Your task to perform on an android device: Go to accessibility settings Image 0: 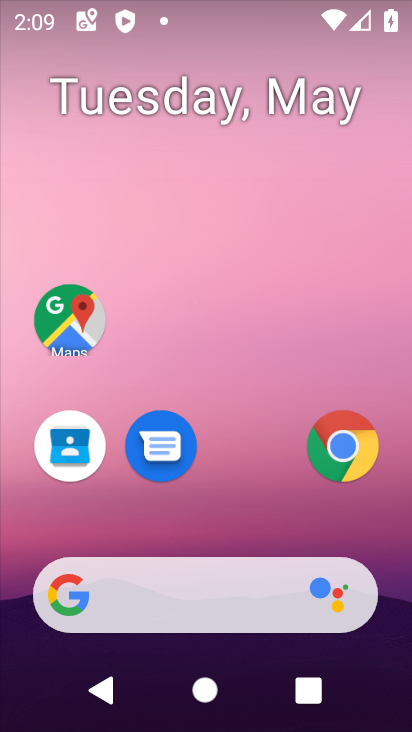
Step 0: drag from (231, 557) to (216, 124)
Your task to perform on an android device: Go to accessibility settings Image 1: 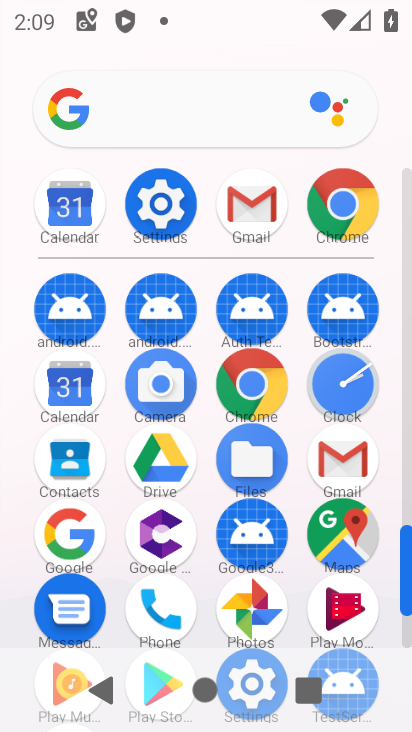
Step 1: click (182, 216)
Your task to perform on an android device: Go to accessibility settings Image 2: 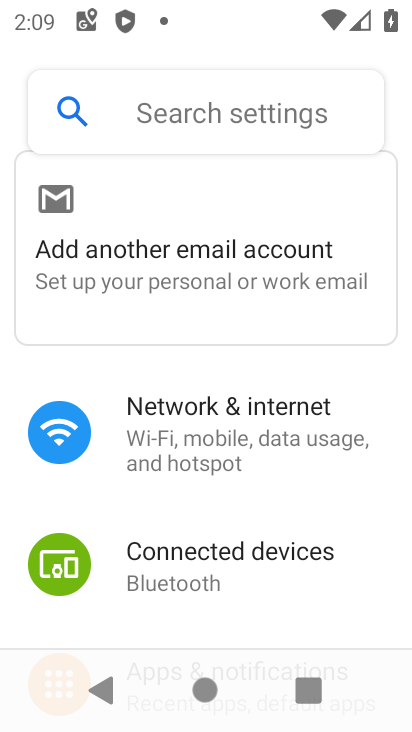
Step 2: drag from (256, 456) to (231, 73)
Your task to perform on an android device: Go to accessibility settings Image 3: 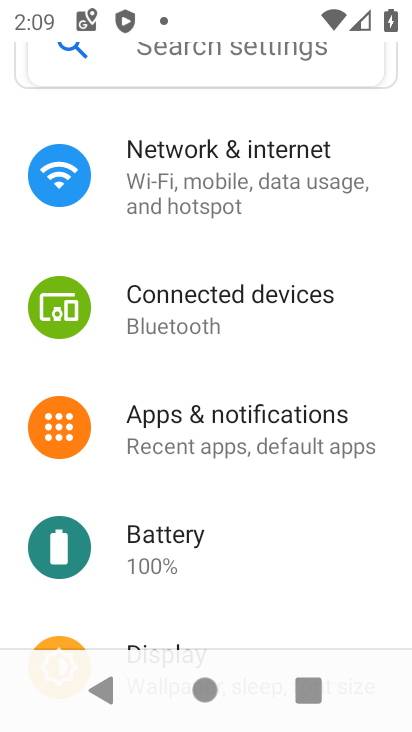
Step 3: drag from (267, 542) to (269, 20)
Your task to perform on an android device: Go to accessibility settings Image 4: 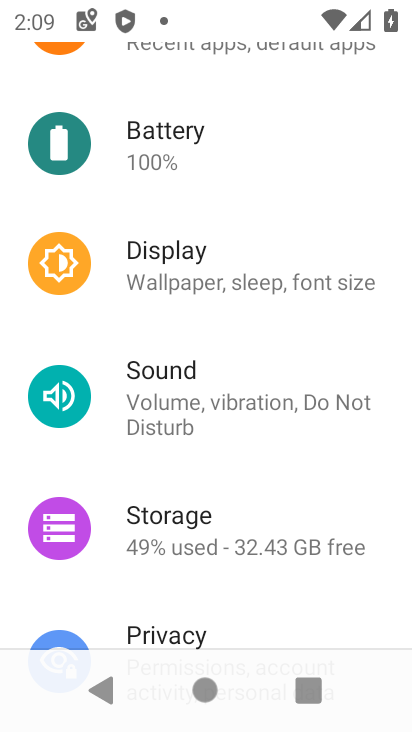
Step 4: drag from (262, 504) to (211, 117)
Your task to perform on an android device: Go to accessibility settings Image 5: 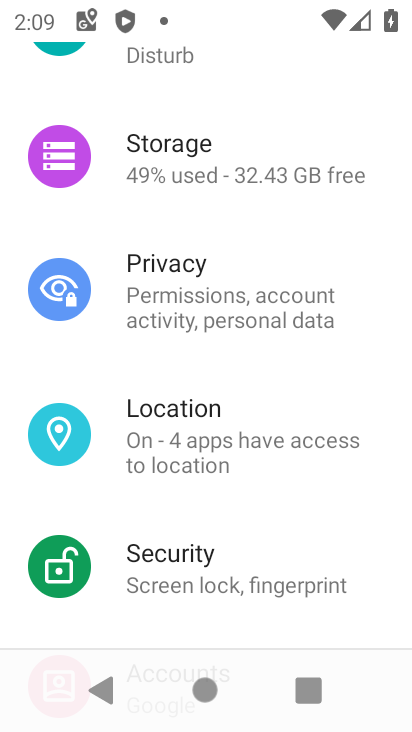
Step 5: drag from (226, 490) to (128, 13)
Your task to perform on an android device: Go to accessibility settings Image 6: 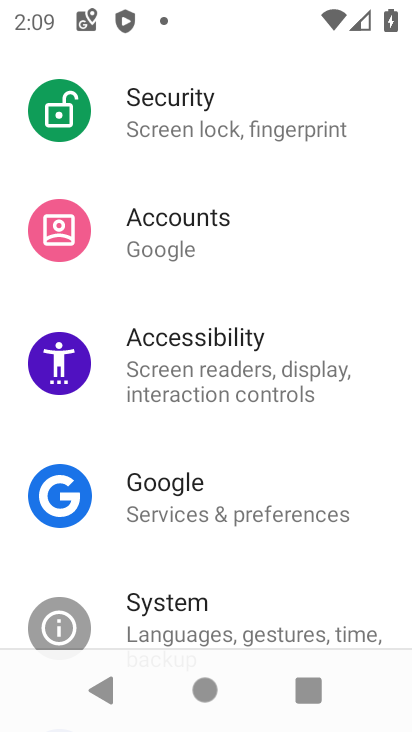
Step 6: click (156, 386)
Your task to perform on an android device: Go to accessibility settings Image 7: 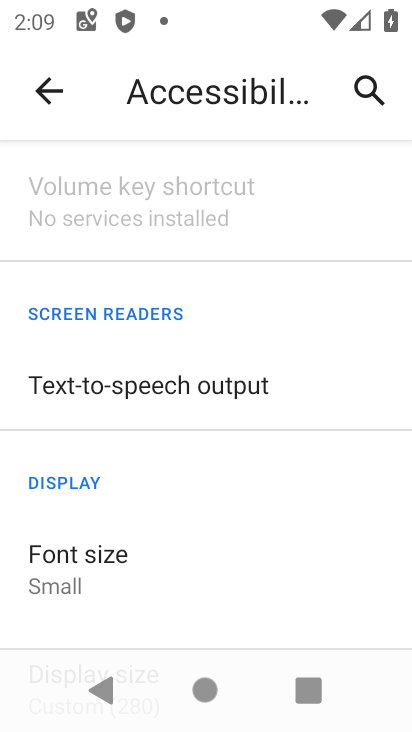
Step 7: task complete